Your task to perform on an android device: toggle pop-ups in chrome Image 0: 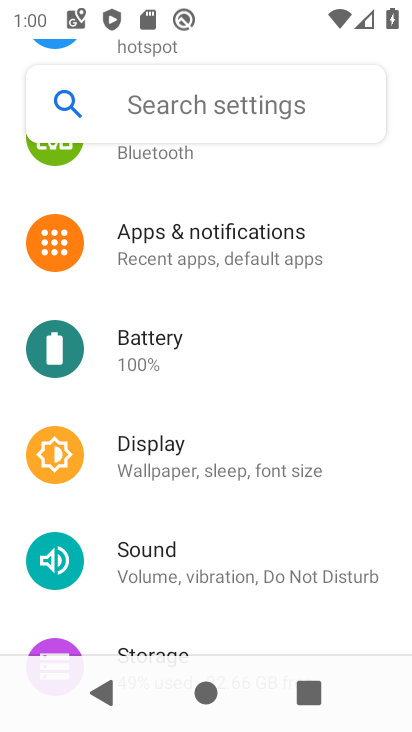
Step 0: press home button
Your task to perform on an android device: toggle pop-ups in chrome Image 1: 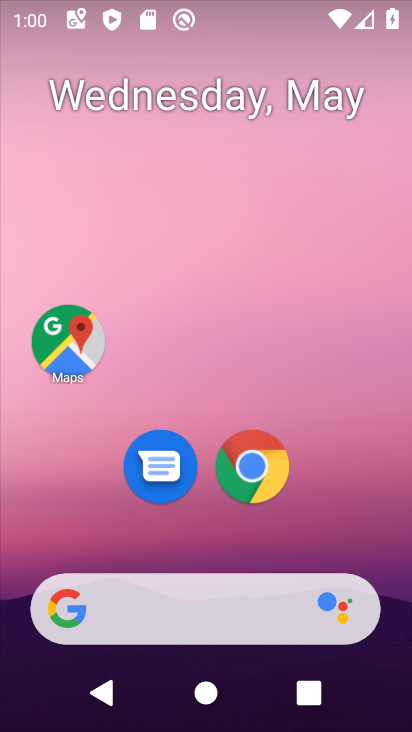
Step 1: drag from (218, 545) to (255, 109)
Your task to perform on an android device: toggle pop-ups in chrome Image 2: 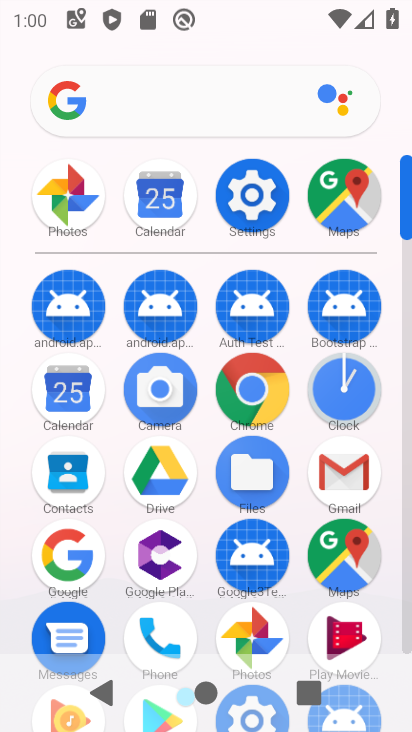
Step 2: click (254, 388)
Your task to perform on an android device: toggle pop-ups in chrome Image 3: 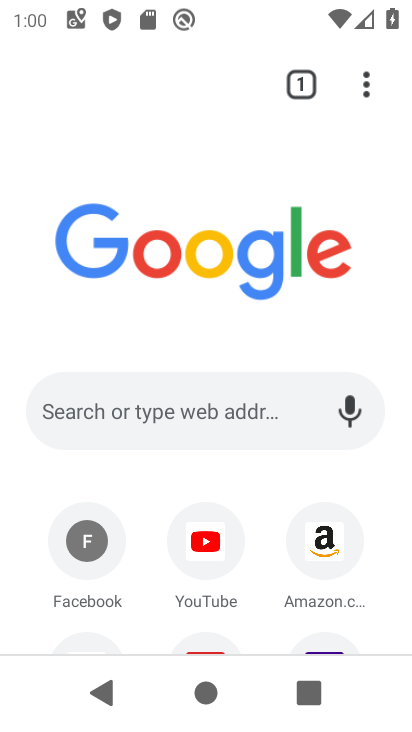
Step 3: click (356, 80)
Your task to perform on an android device: toggle pop-ups in chrome Image 4: 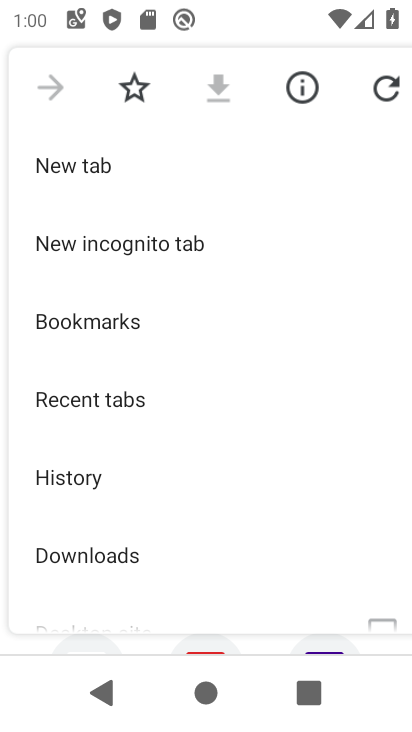
Step 4: drag from (230, 559) to (212, 130)
Your task to perform on an android device: toggle pop-ups in chrome Image 5: 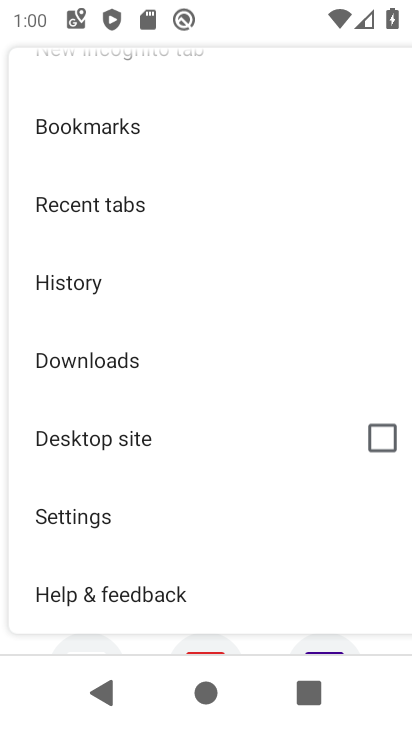
Step 5: click (28, 521)
Your task to perform on an android device: toggle pop-ups in chrome Image 6: 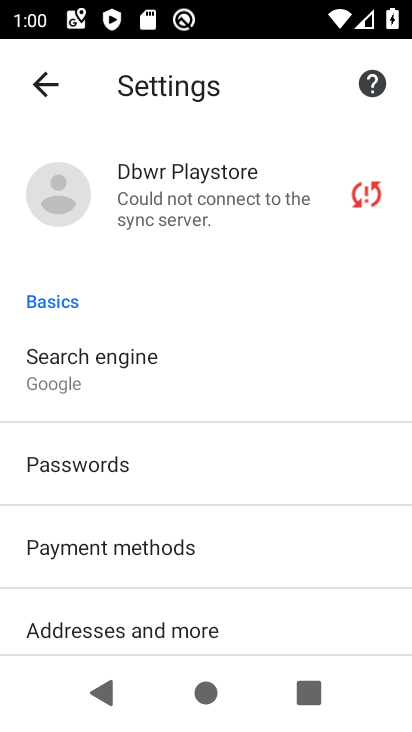
Step 6: drag from (250, 573) to (264, 96)
Your task to perform on an android device: toggle pop-ups in chrome Image 7: 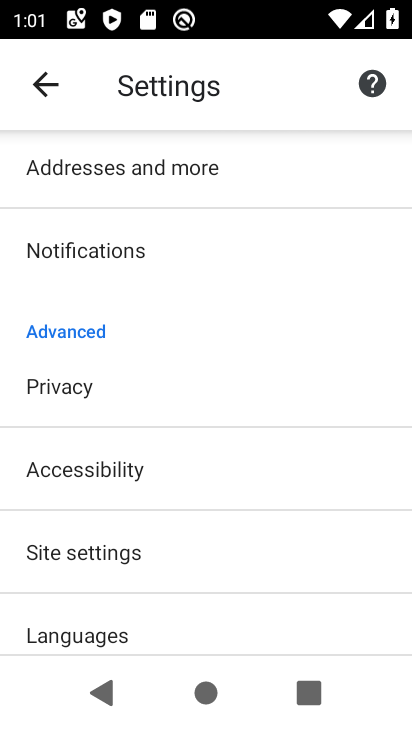
Step 7: click (136, 546)
Your task to perform on an android device: toggle pop-ups in chrome Image 8: 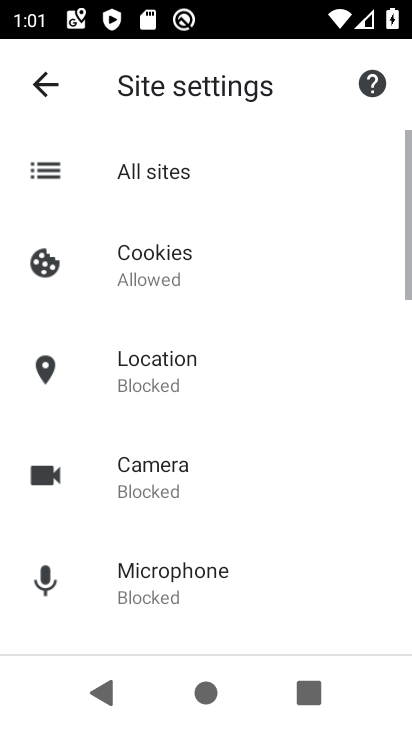
Step 8: drag from (246, 541) to (272, 204)
Your task to perform on an android device: toggle pop-ups in chrome Image 9: 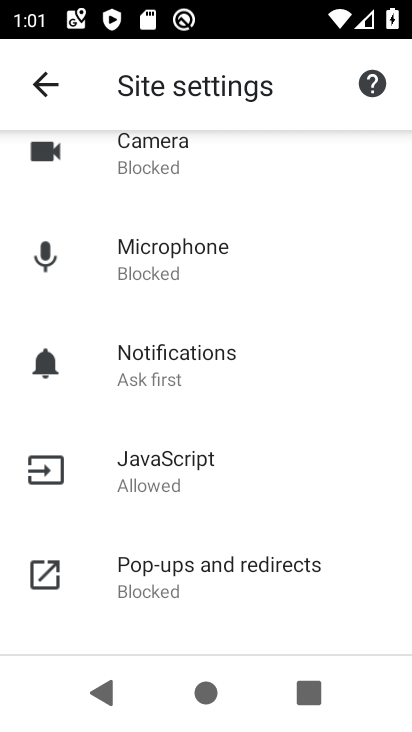
Step 9: click (188, 581)
Your task to perform on an android device: toggle pop-ups in chrome Image 10: 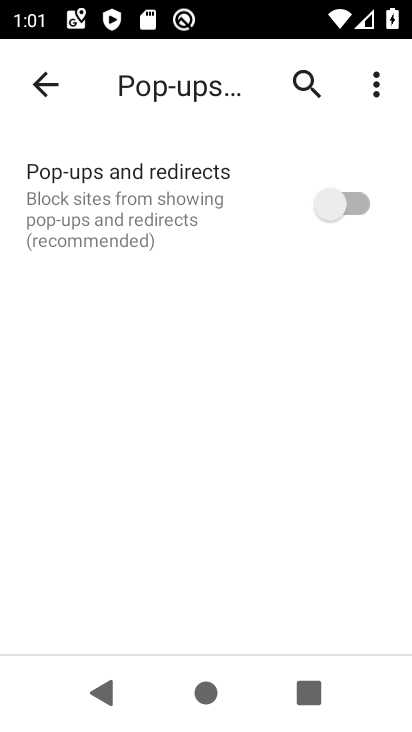
Step 10: click (350, 194)
Your task to perform on an android device: toggle pop-ups in chrome Image 11: 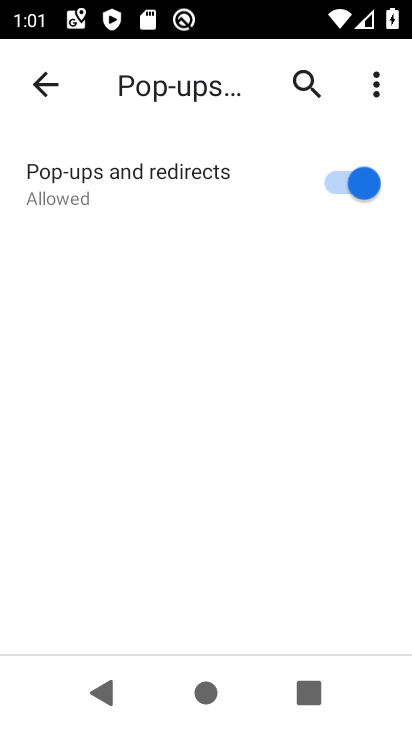
Step 11: task complete